Your task to perform on an android device: open app "Mercado Libre" (install if not already installed) Image 0: 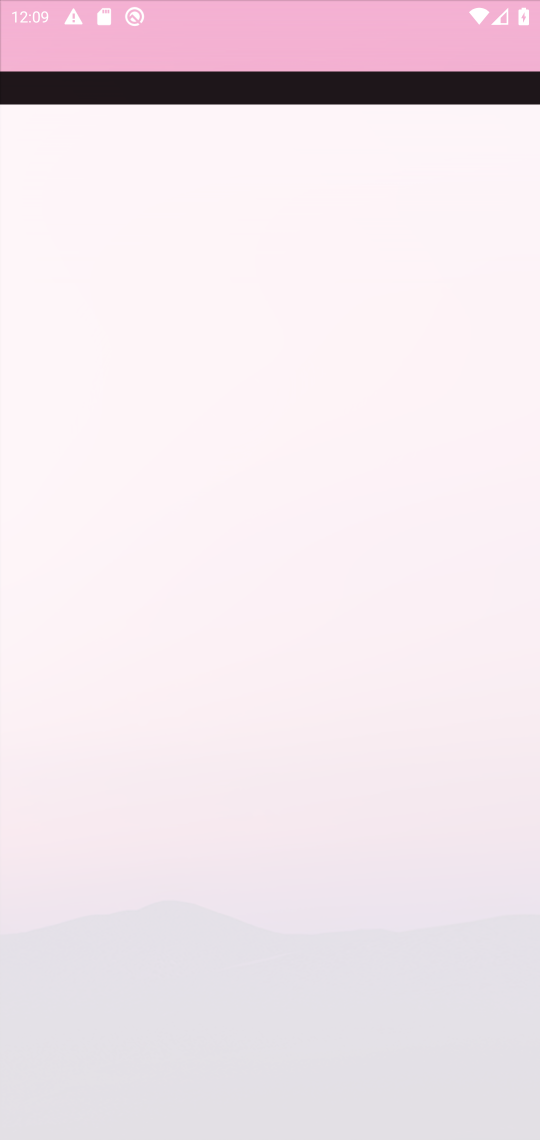
Step 0: press home button
Your task to perform on an android device: open app "Mercado Libre" (install if not already installed) Image 1: 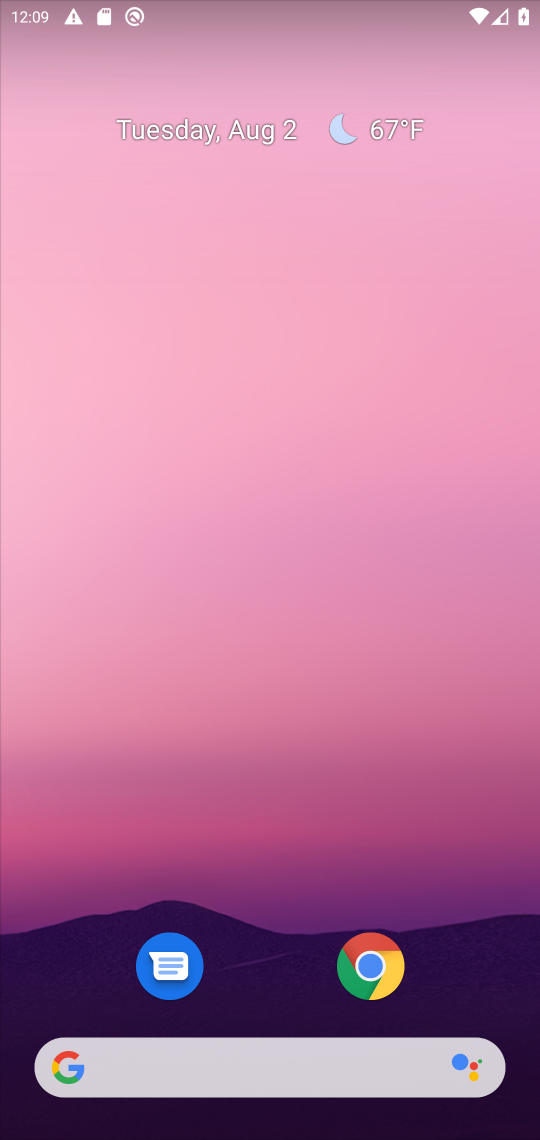
Step 1: drag from (460, 845) to (465, 91)
Your task to perform on an android device: open app "Mercado Libre" (install if not already installed) Image 2: 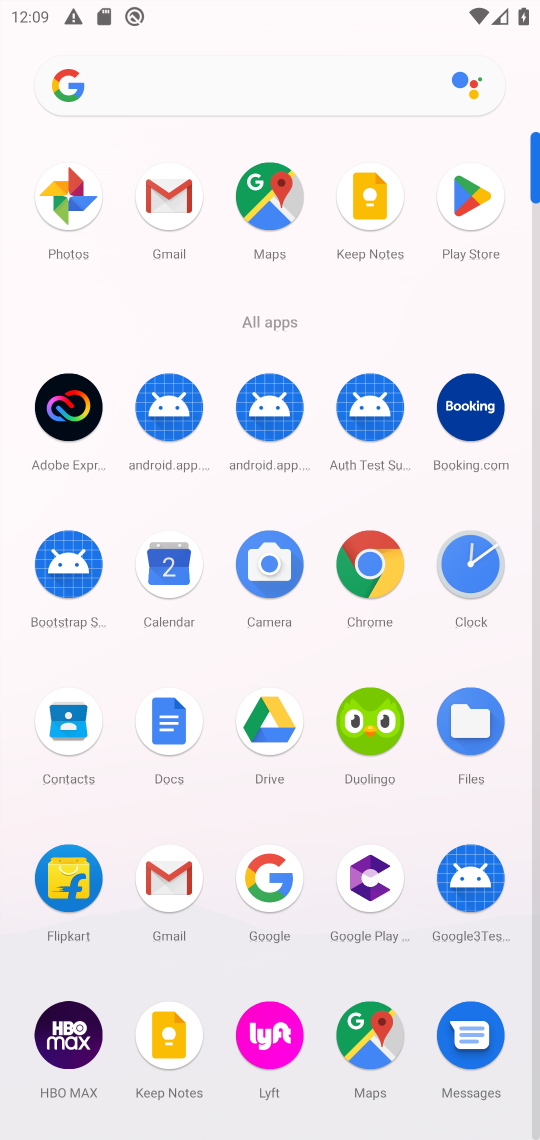
Step 2: click (466, 210)
Your task to perform on an android device: open app "Mercado Libre" (install if not already installed) Image 3: 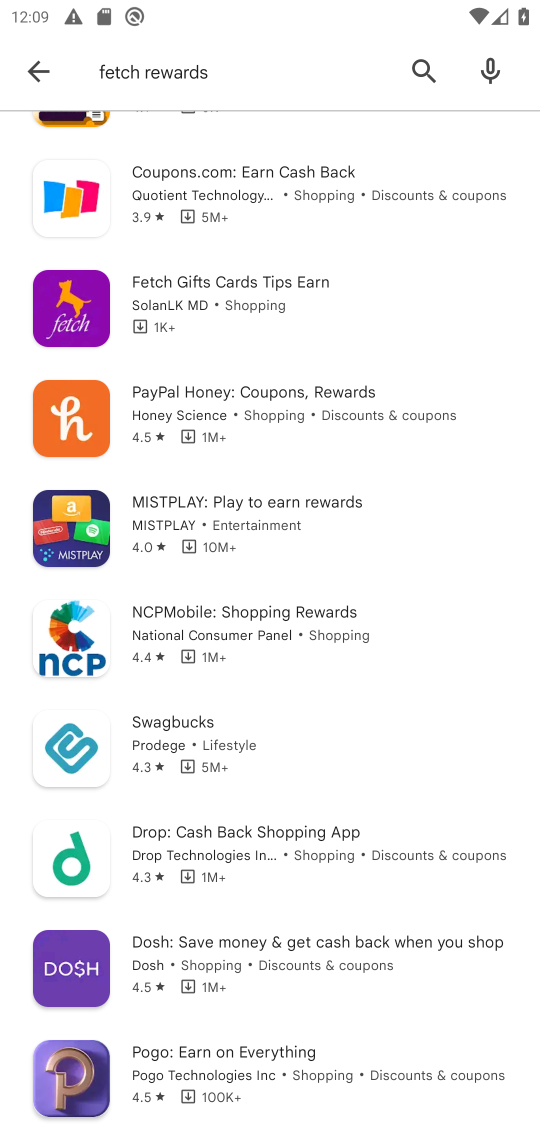
Step 3: click (423, 70)
Your task to perform on an android device: open app "Mercado Libre" (install if not already installed) Image 4: 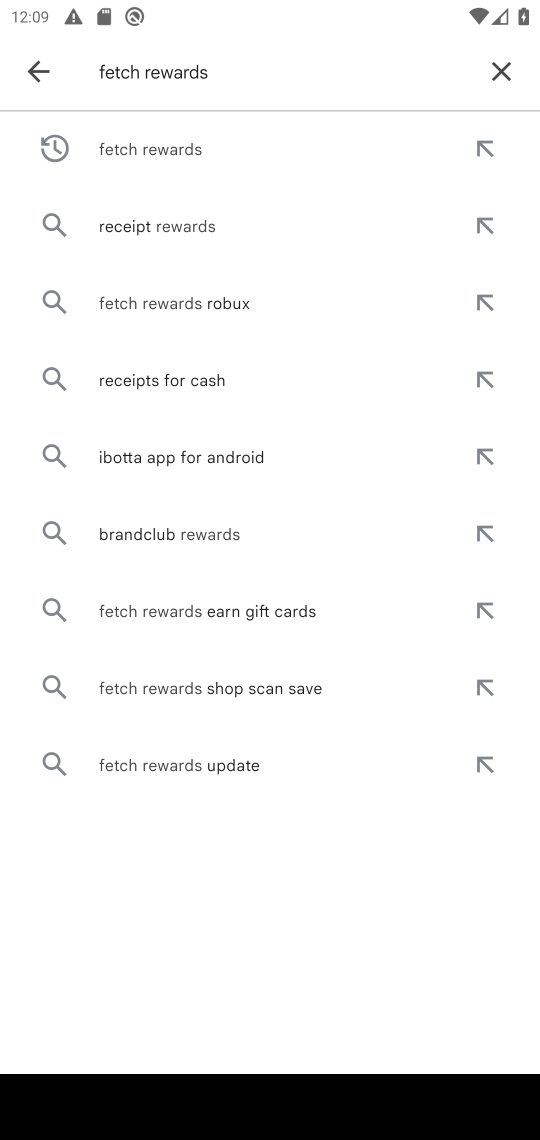
Step 4: click (499, 67)
Your task to perform on an android device: open app "Mercado Libre" (install if not already installed) Image 5: 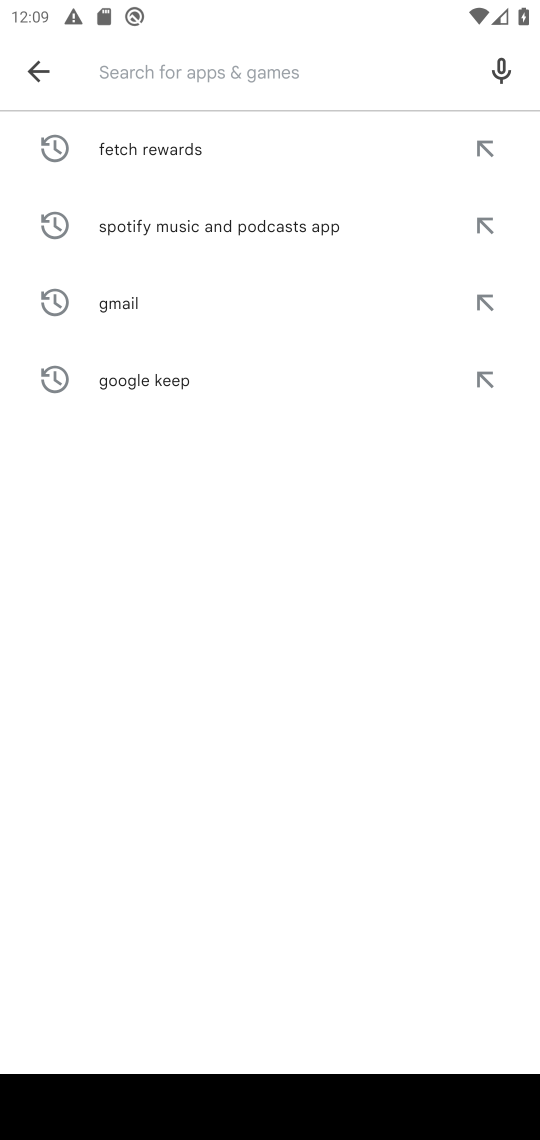
Step 5: click (321, 76)
Your task to perform on an android device: open app "Mercado Libre" (install if not already installed) Image 6: 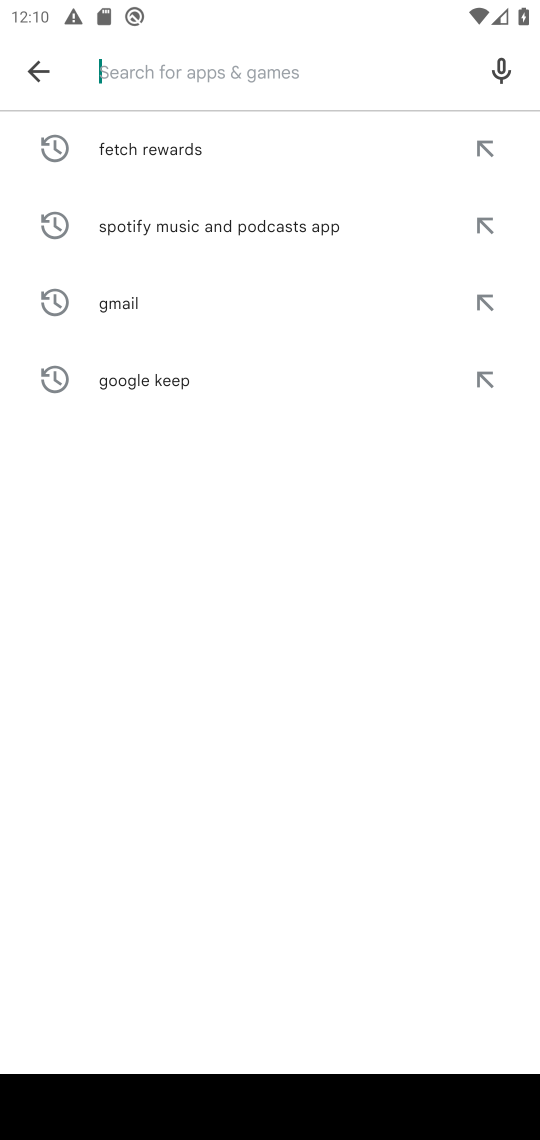
Step 6: type "mercado libre"
Your task to perform on an android device: open app "Mercado Libre" (install if not already installed) Image 7: 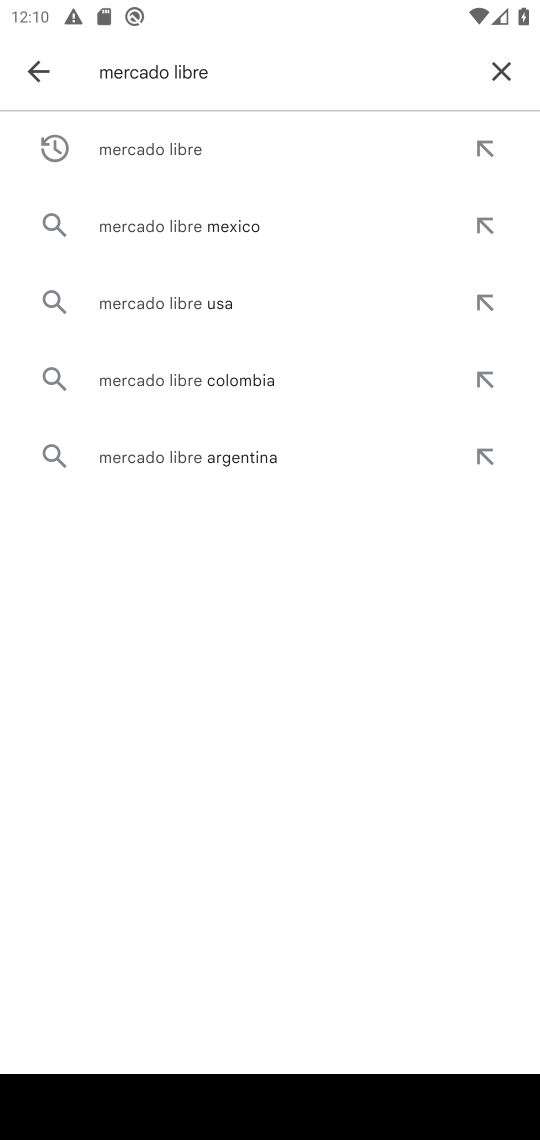
Step 7: click (181, 156)
Your task to perform on an android device: open app "Mercado Libre" (install if not already installed) Image 8: 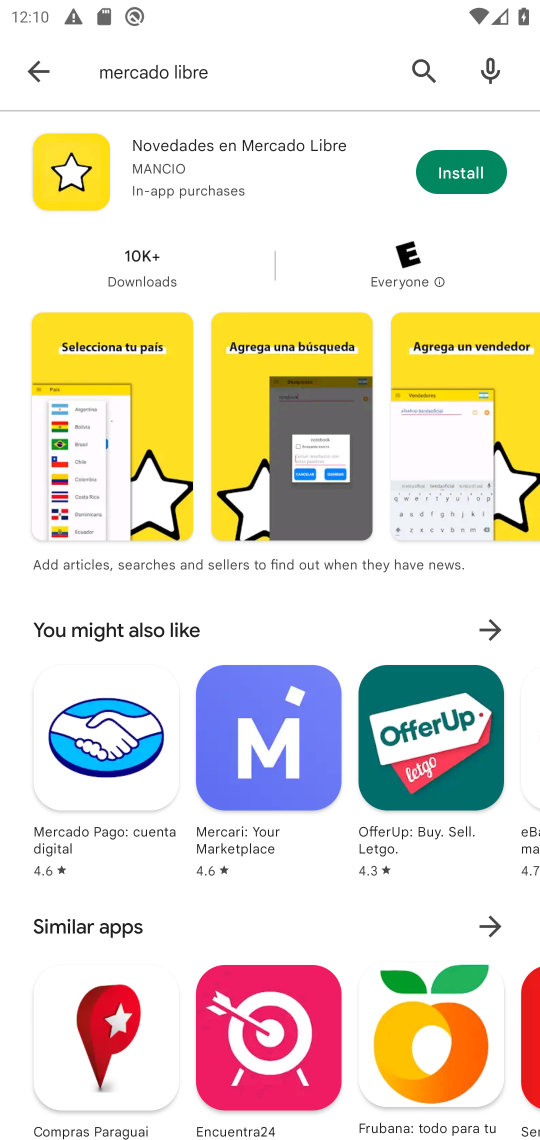
Step 8: click (467, 170)
Your task to perform on an android device: open app "Mercado Libre" (install if not already installed) Image 9: 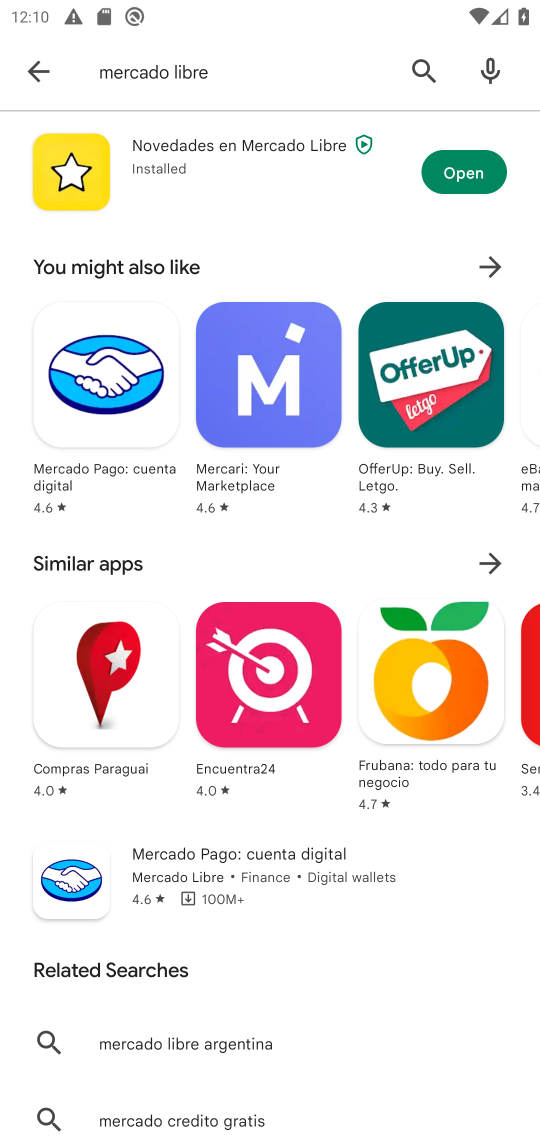
Step 9: click (473, 174)
Your task to perform on an android device: open app "Mercado Libre" (install if not already installed) Image 10: 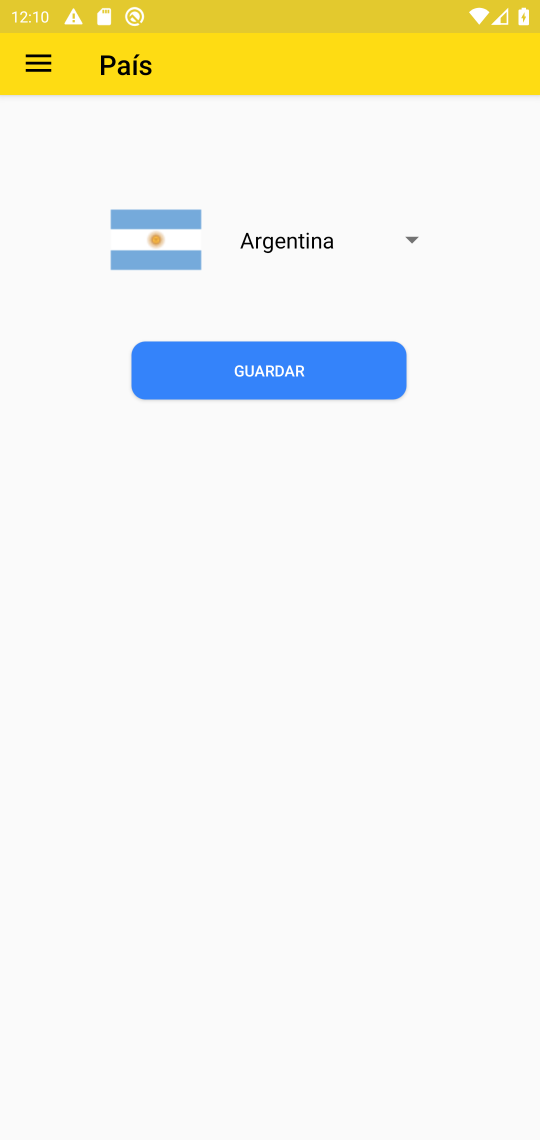
Step 10: task complete